Your task to perform on an android device: Add dell alienware to the cart on bestbuy, then select checkout. Image 0: 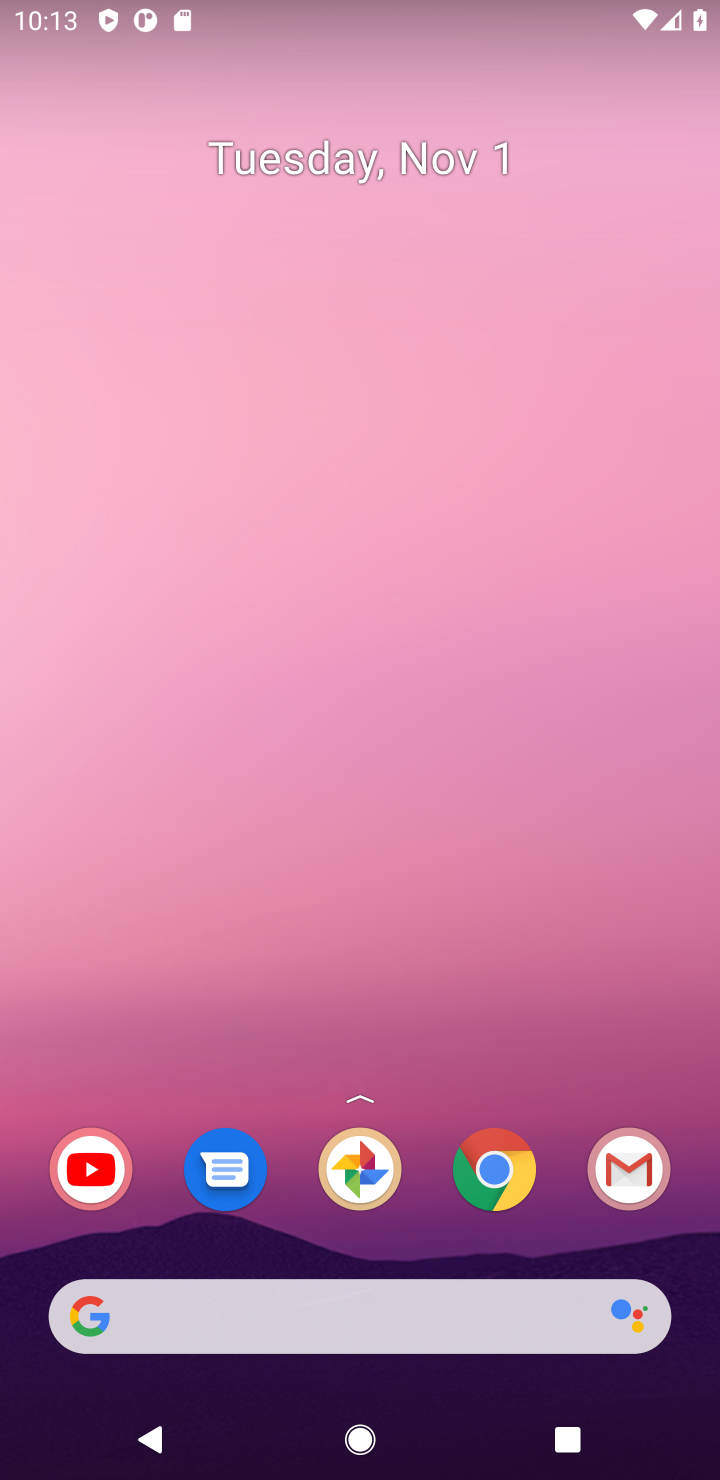
Step 0: click (492, 1175)
Your task to perform on an android device: Add dell alienware to the cart on bestbuy, then select checkout. Image 1: 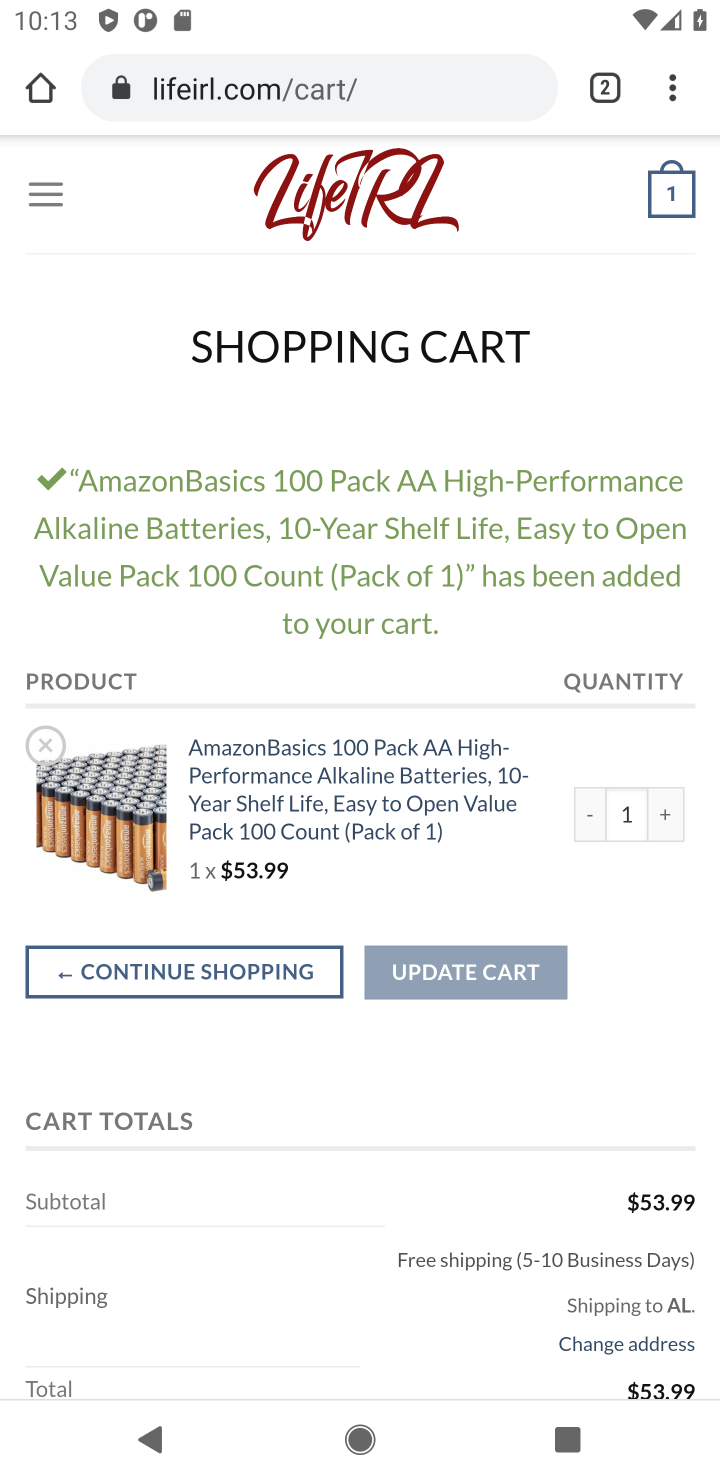
Step 1: click (260, 68)
Your task to perform on an android device: Add dell alienware to the cart on bestbuy, then select checkout. Image 2: 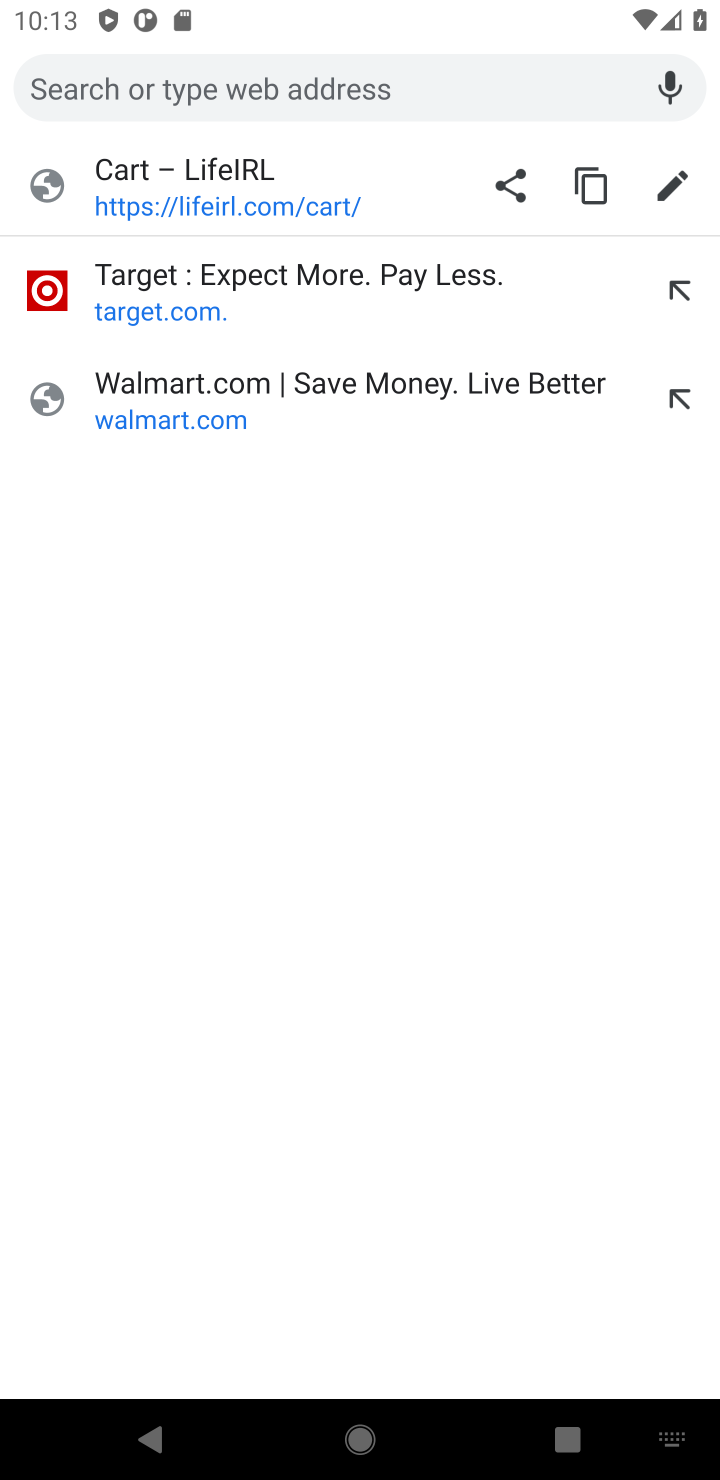
Step 2: type "bestbuy"
Your task to perform on an android device: Add dell alienware to the cart on bestbuy, then select checkout. Image 3: 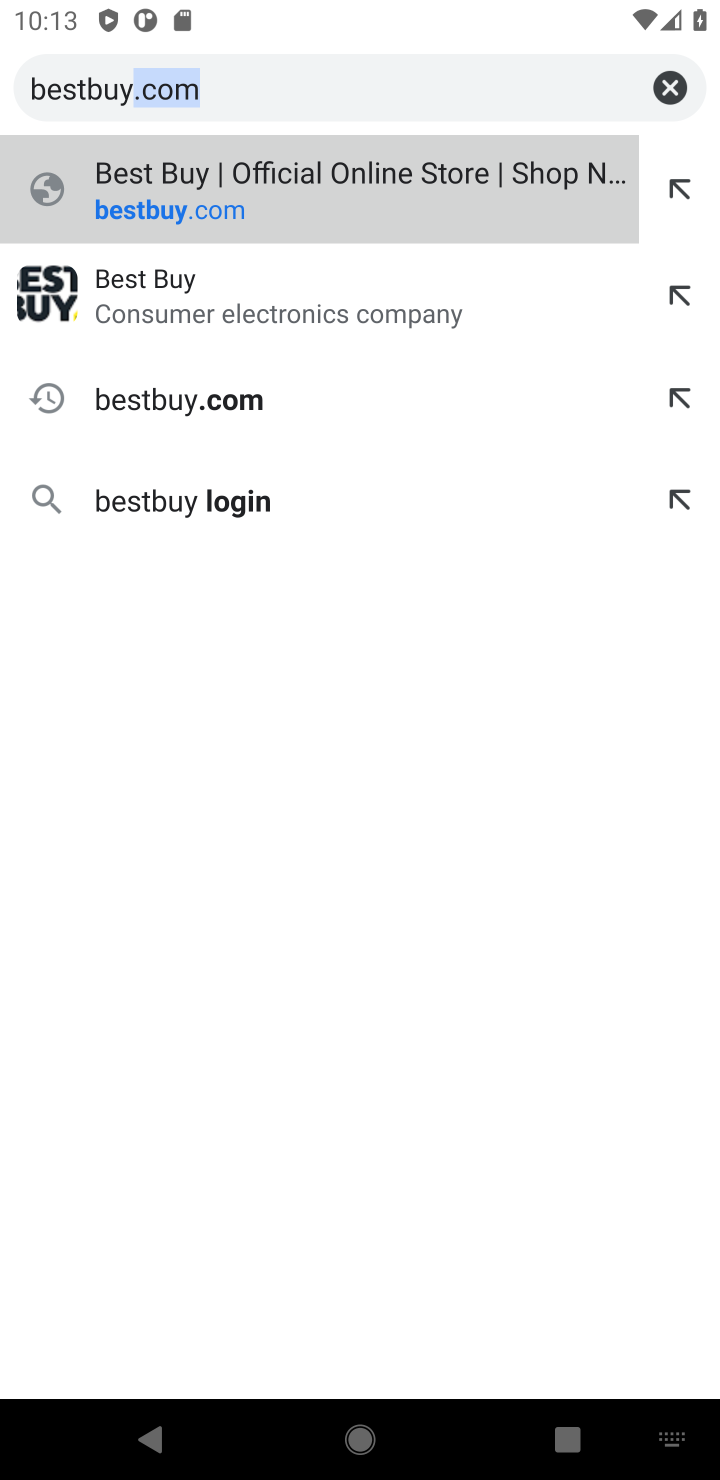
Step 3: press enter
Your task to perform on an android device: Add dell alienware to the cart on bestbuy, then select checkout. Image 4: 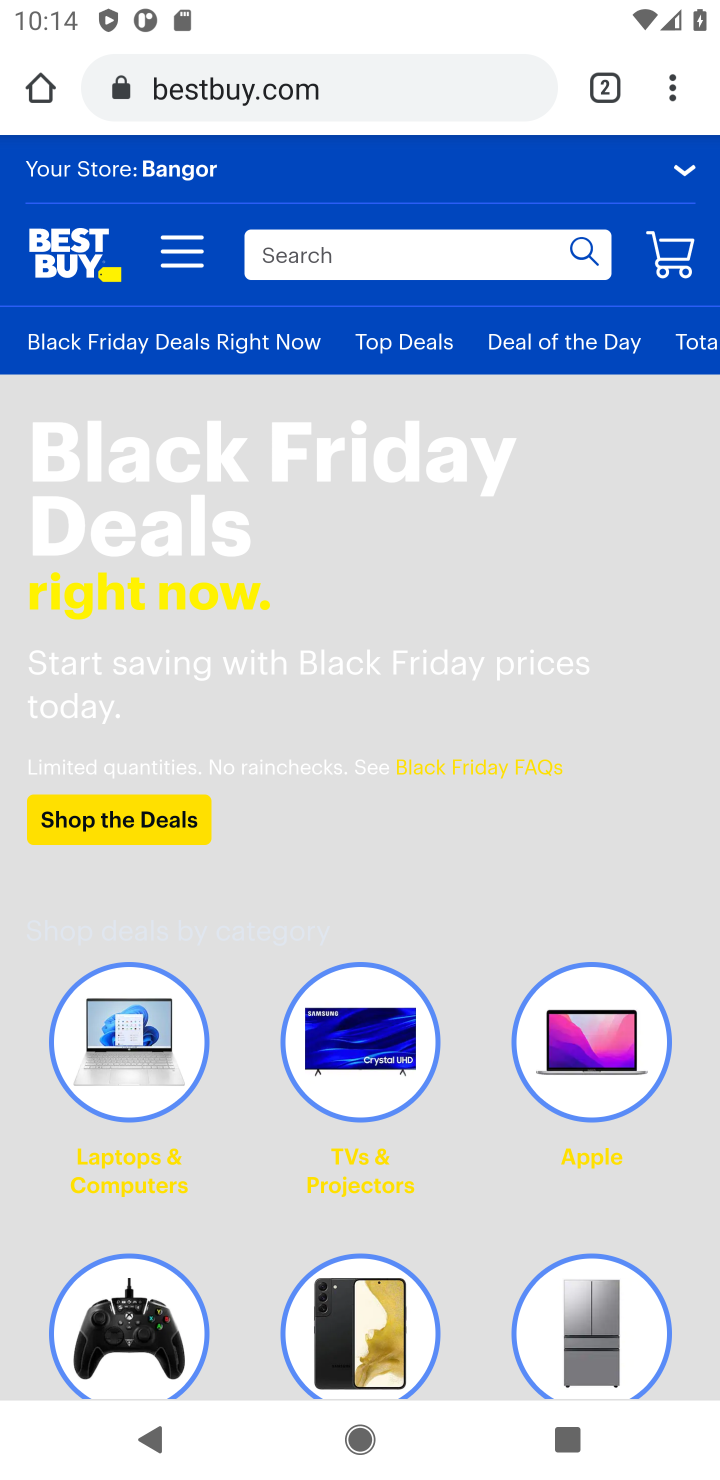
Step 4: click (316, 250)
Your task to perform on an android device: Add dell alienware to the cart on bestbuy, then select checkout. Image 5: 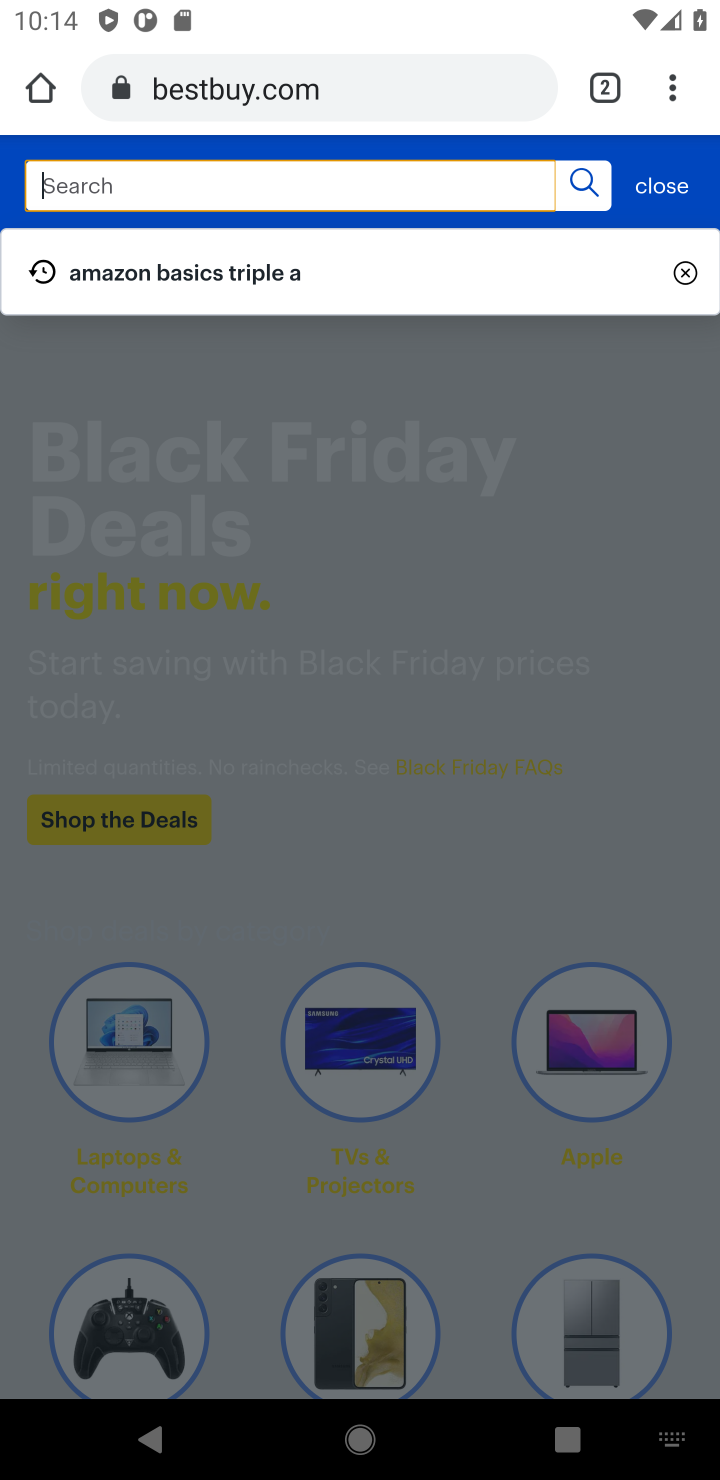
Step 5: type "dell alienware"
Your task to perform on an android device: Add dell alienware to the cart on bestbuy, then select checkout. Image 6: 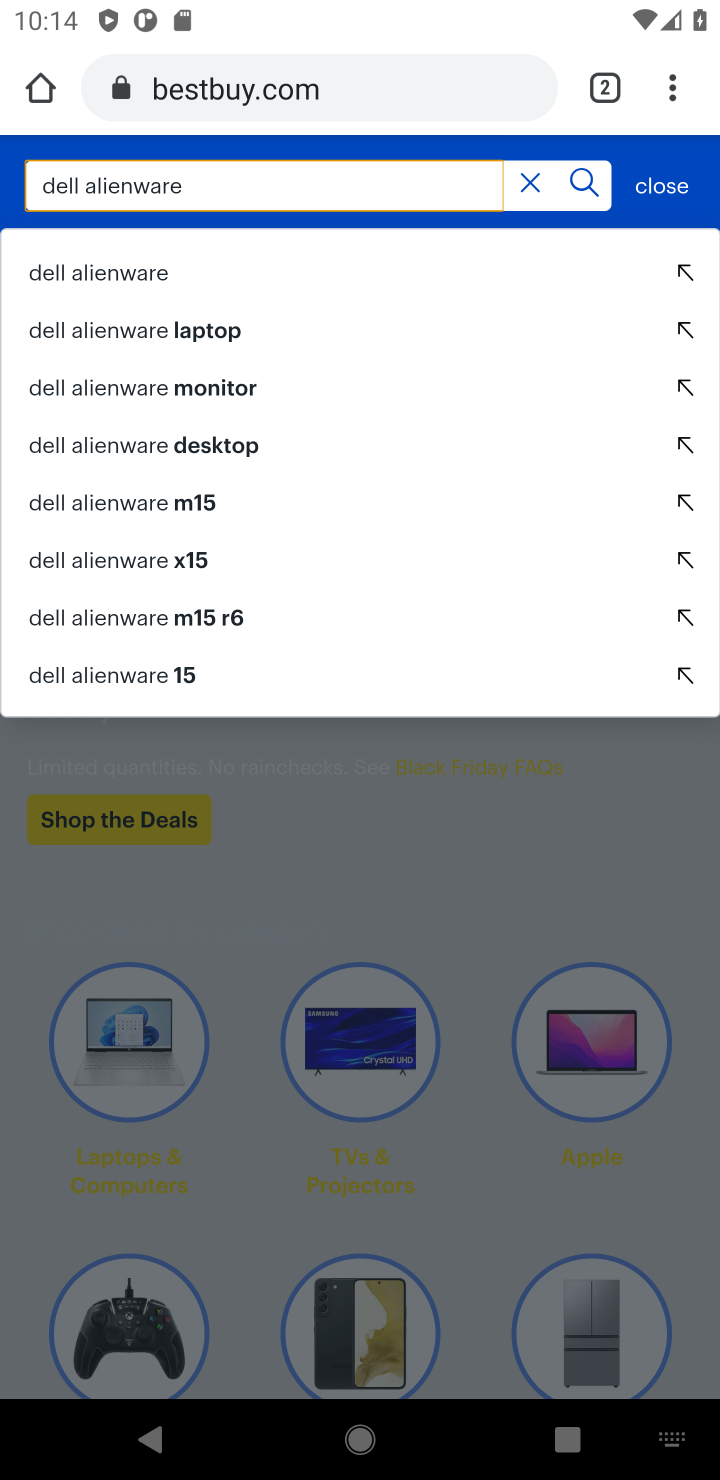
Step 6: click (119, 265)
Your task to perform on an android device: Add dell alienware to the cart on bestbuy, then select checkout. Image 7: 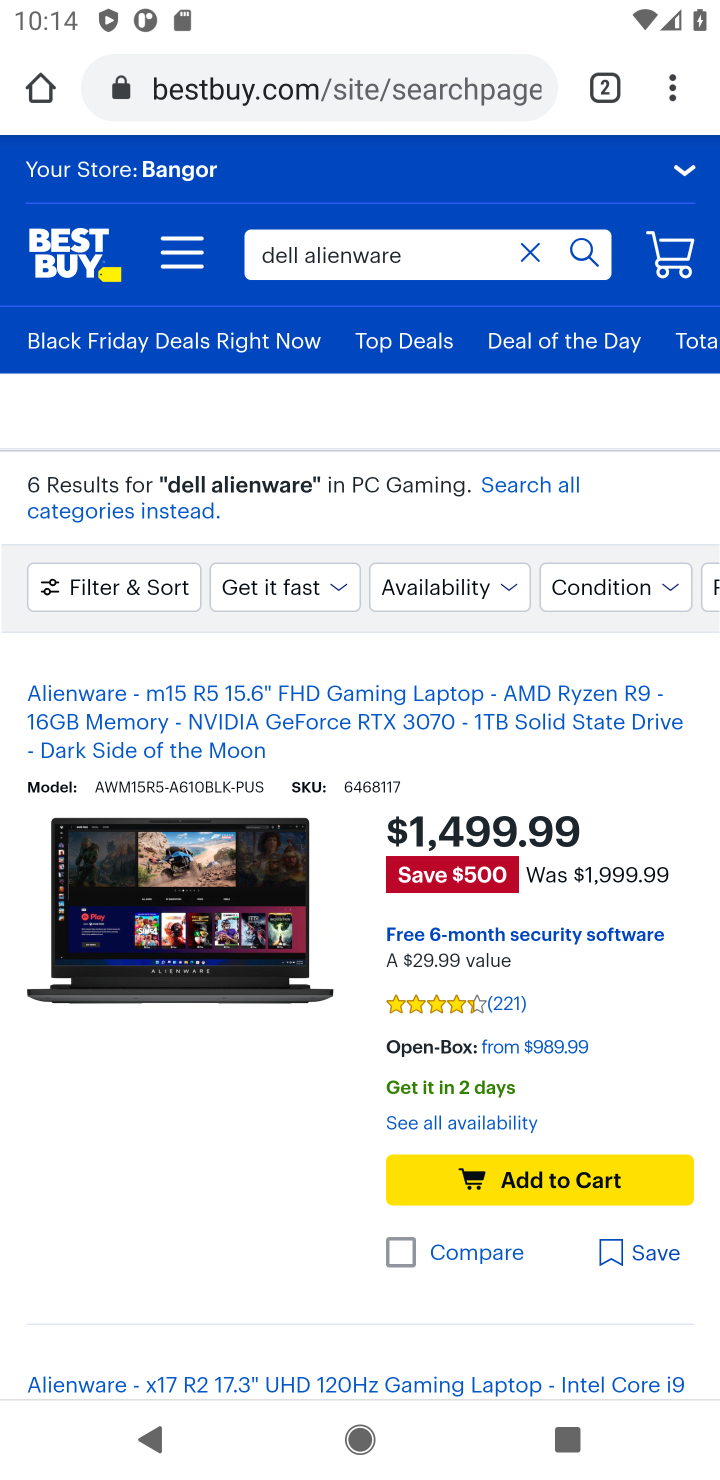
Step 7: click (184, 865)
Your task to perform on an android device: Add dell alienware to the cart on bestbuy, then select checkout. Image 8: 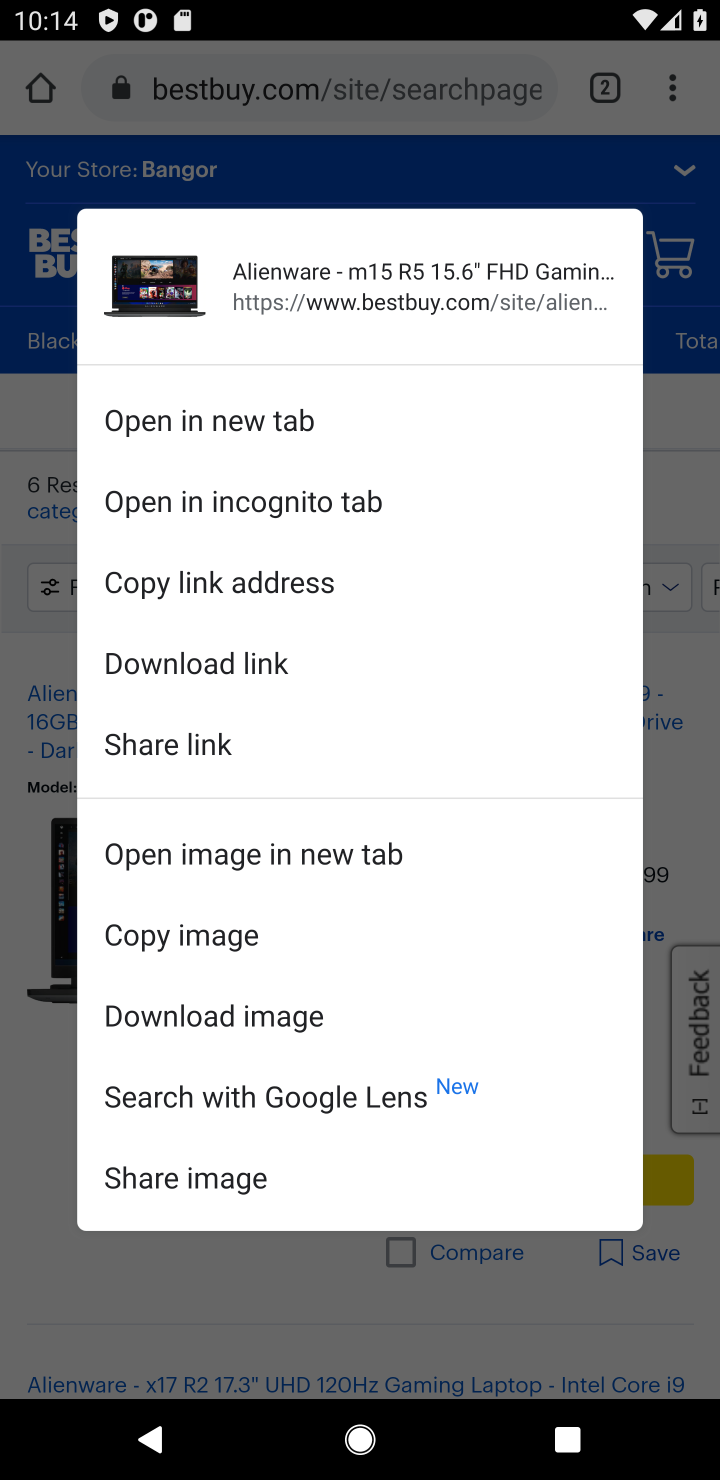
Step 8: click (702, 691)
Your task to perform on an android device: Add dell alienware to the cart on bestbuy, then select checkout. Image 9: 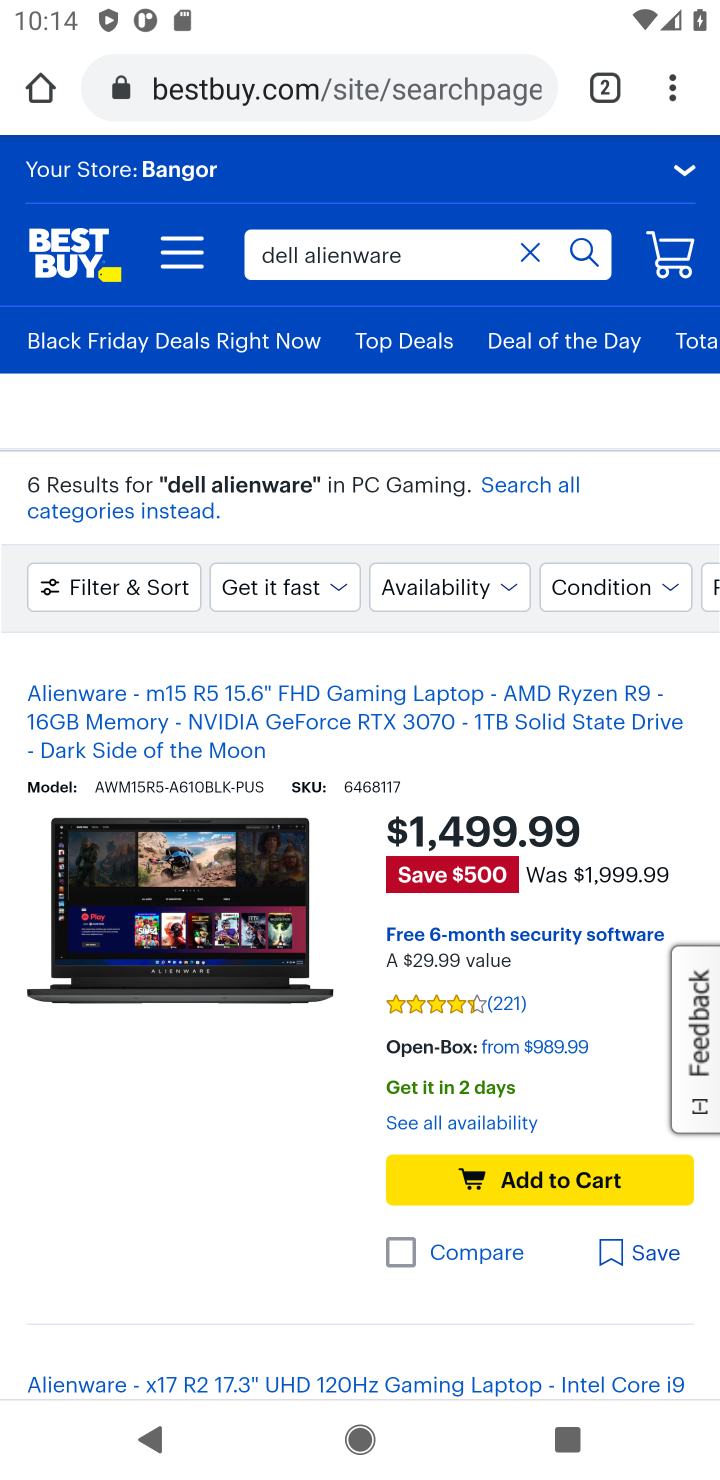
Step 9: click (533, 1181)
Your task to perform on an android device: Add dell alienware to the cart on bestbuy, then select checkout. Image 10: 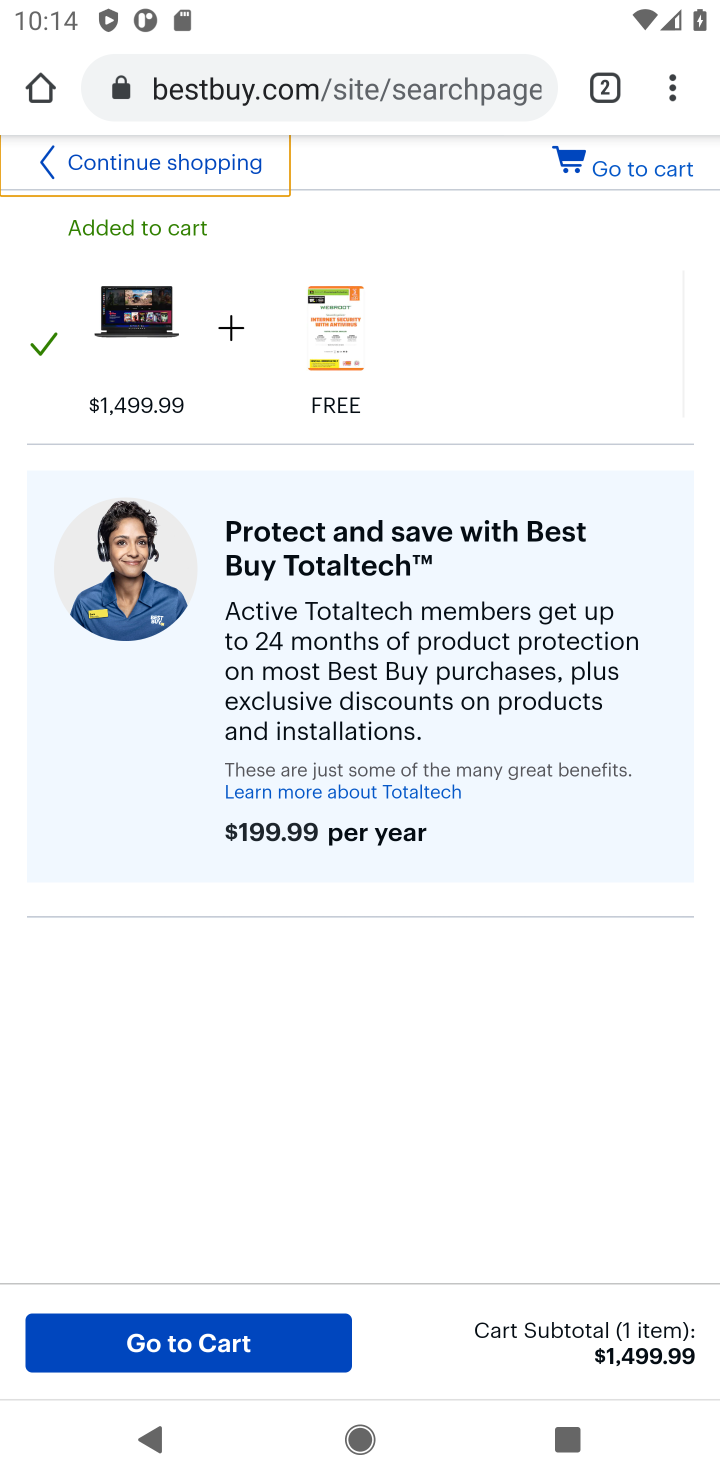
Step 10: click (209, 1343)
Your task to perform on an android device: Add dell alienware to the cart on bestbuy, then select checkout. Image 11: 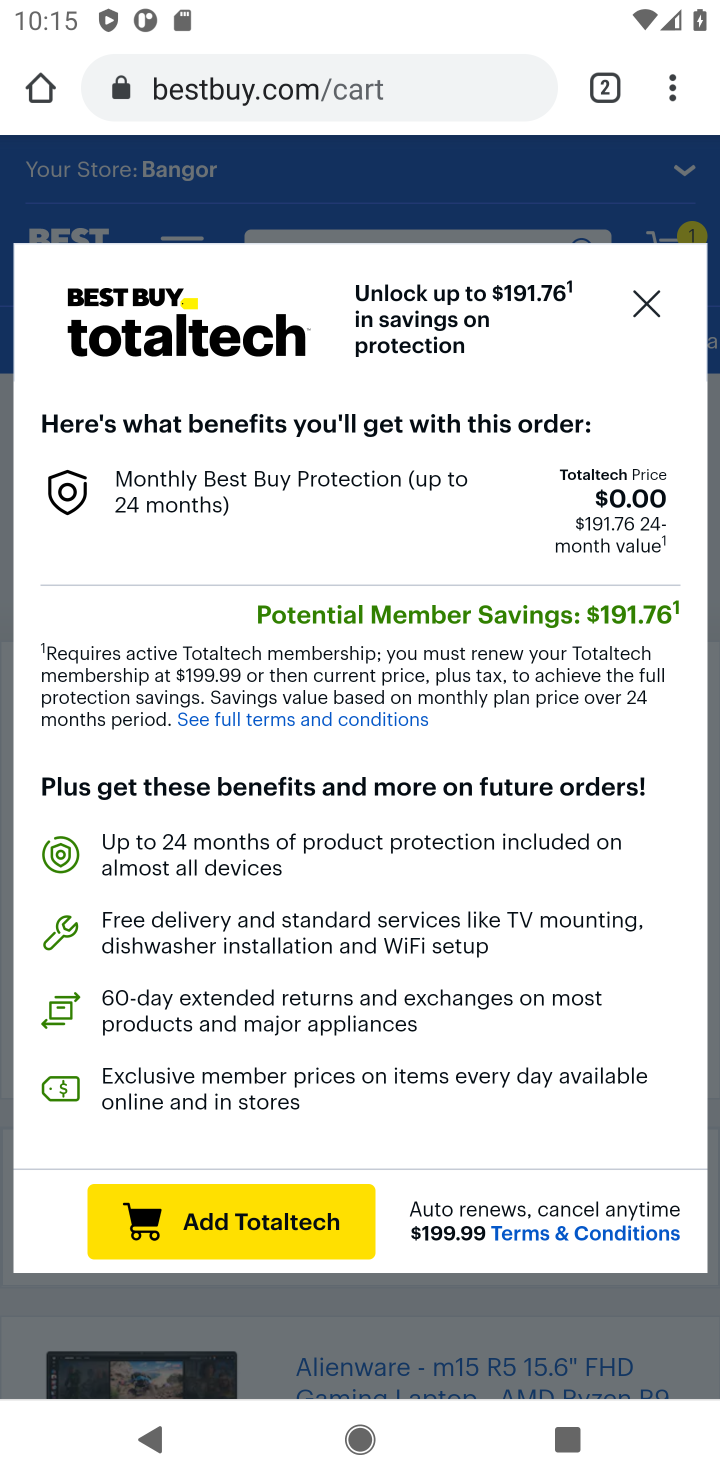
Step 11: click (647, 291)
Your task to perform on an android device: Add dell alienware to the cart on bestbuy, then select checkout. Image 12: 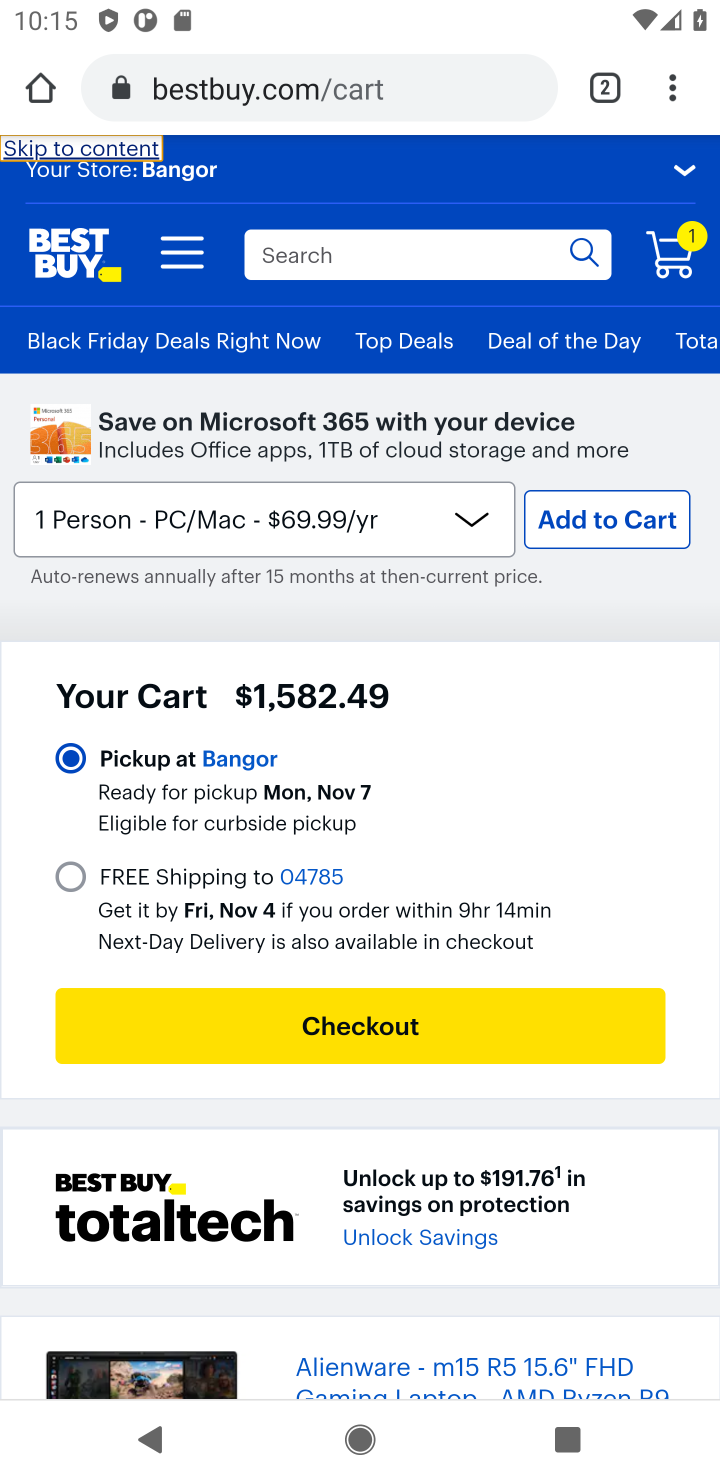
Step 12: click (415, 1024)
Your task to perform on an android device: Add dell alienware to the cart on bestbuy, then select checkout. Image 13: 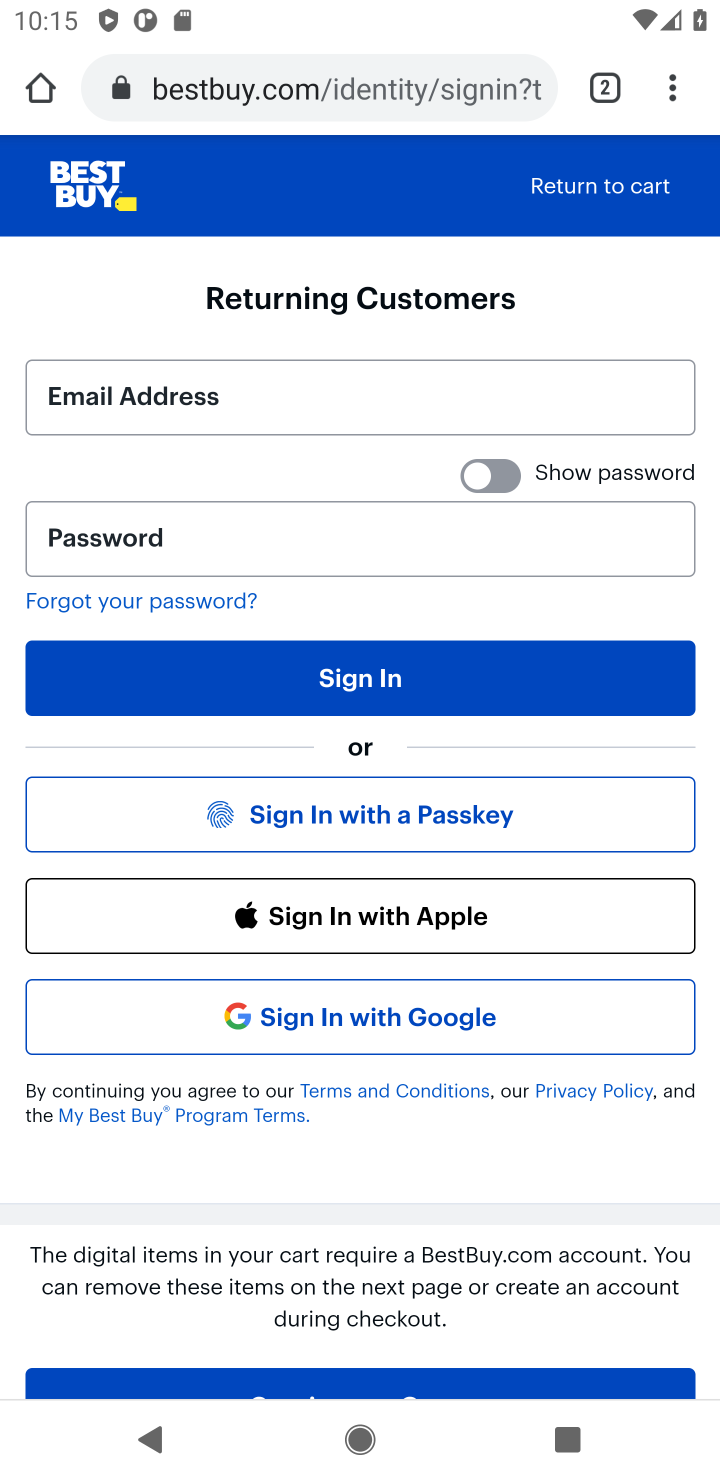
Step 13: task complete